Your task to perform on an android device: choose inbox layout in the gmail app Image 0: 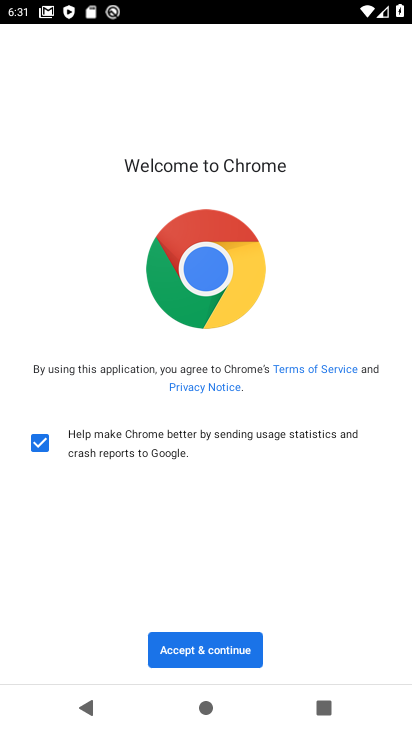
Step 0: press home button
Your task to perform on an android device: choose inbox layout in the gmail app Image 1: 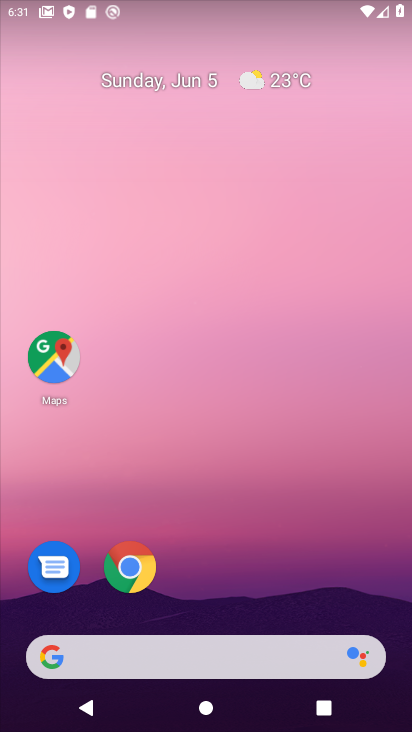
Step 1: press home button
Your task to perform on an android device: choose inbox layout in the gmail app Image 2: 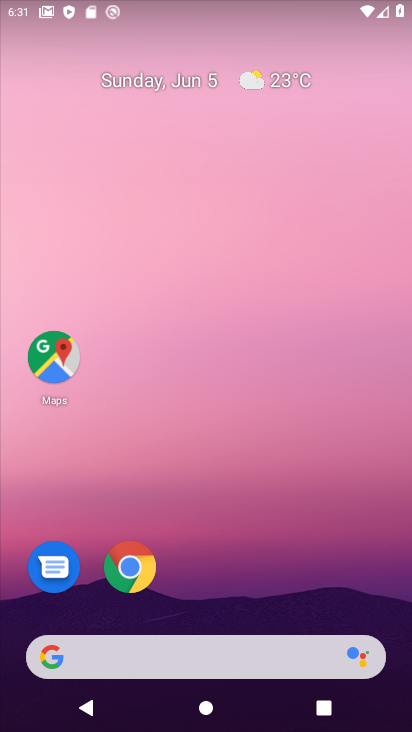
Step 2: drag from (315, 600) to (288, 154)
Your task to perform on an android device: choose inbox layout in the gmail app Image 3: 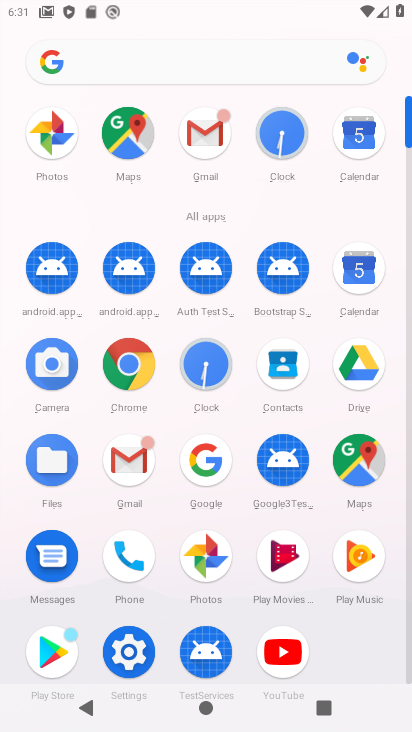
Step 3: click (128, 450)
Your task to perform on an android device: choose inbox layout in the gmail app Image 4: 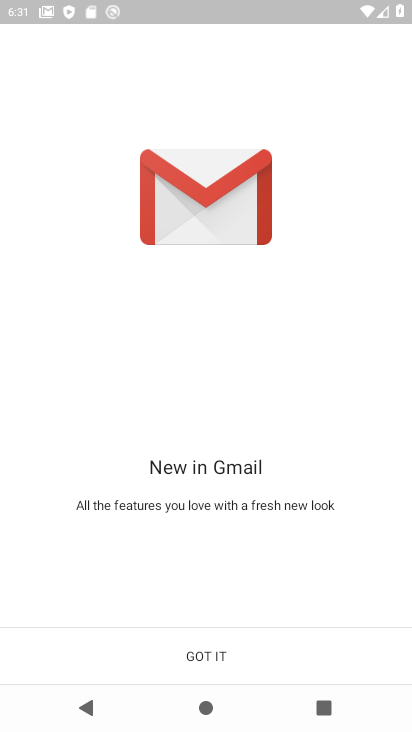
Step 4: click (194, 653)
Your task to perform on an android device: choose inbox layout in the gmail app Image 5: 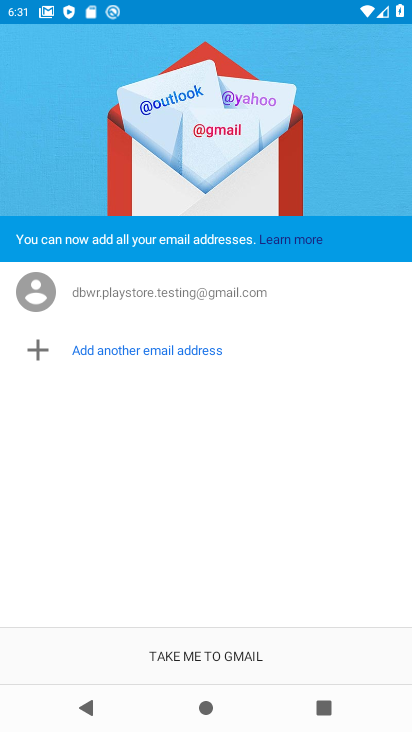
Step 5: click (194, 653)
Your task to perform on an android device: choose inbox layout in the gmail app Image 6: 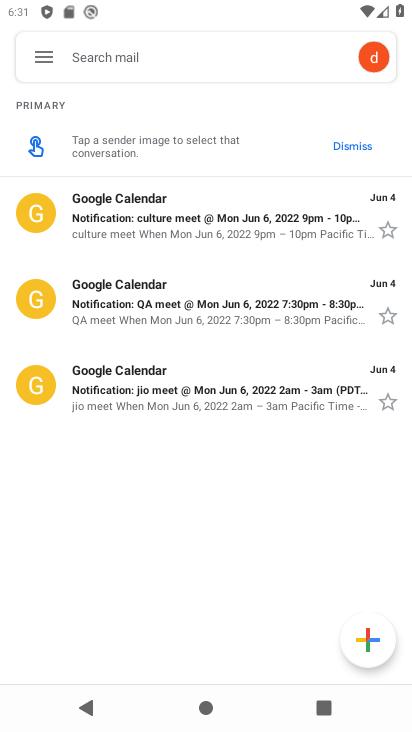
Step 6: task complete